Your task to perform on an android device: open chrome privacy settings Image 0: 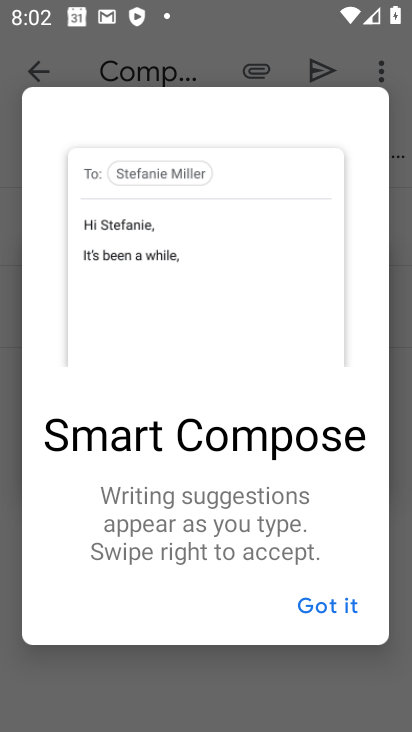
Step 0: press home button
Your task to perform on an android device: open chrome privacy settings Image 1: 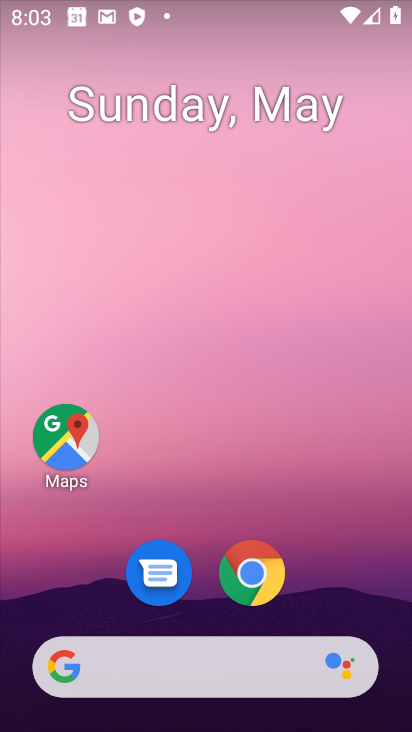
Step 1: click (250, 571)
Your task to perform on an android device: open chrome privacy settings Image 2: 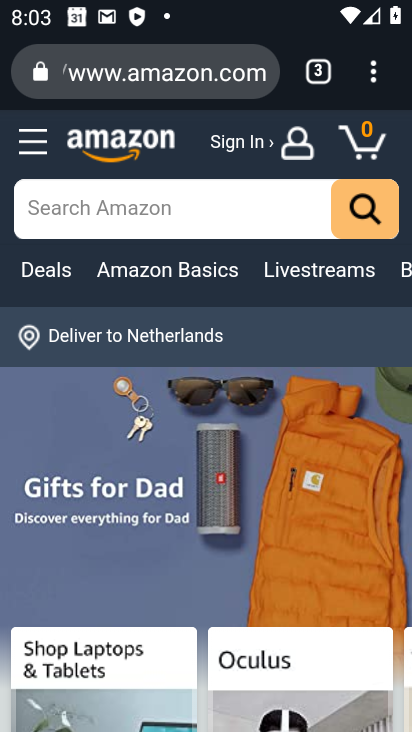
Step 2: click (372, 66)
Your task to perform on an android device: open chrome privacy settings Image 3: 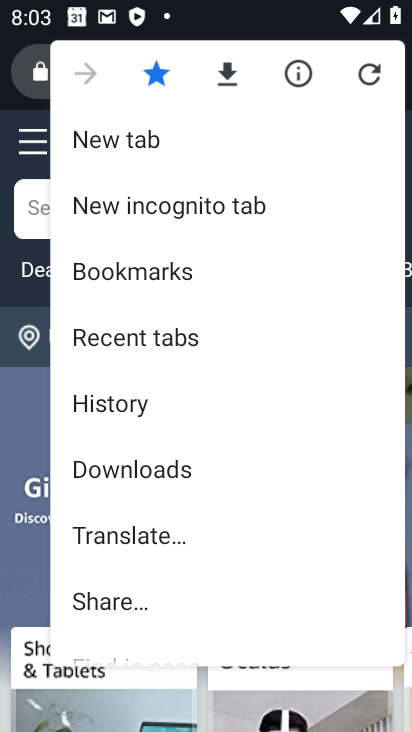
Step 3: drag from (243, 503) to (250, 129)
Your task to perform on an android device: open chrome privacy settings Image 4: 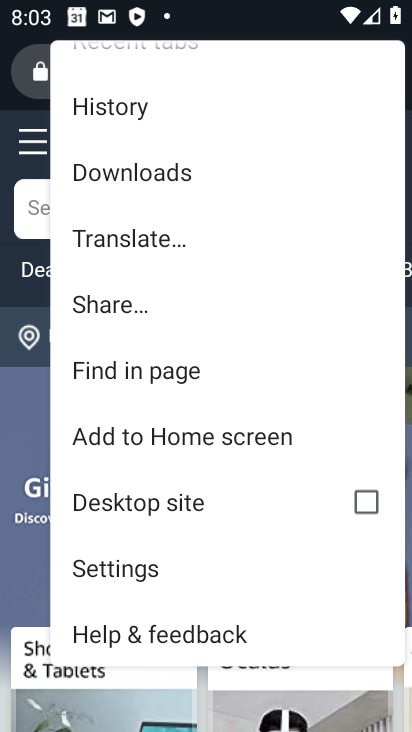
Step 4: click (171, 570)
Your task to perform on an android device: open chrome privacy settings Image 5: 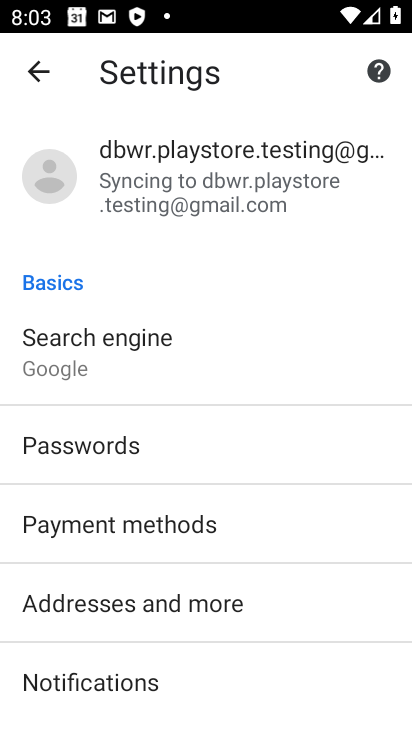
Step 5: drag from (232, 590) to (266, 243)
Your task to perform on an android device: open chrome privacy settings Image 6: 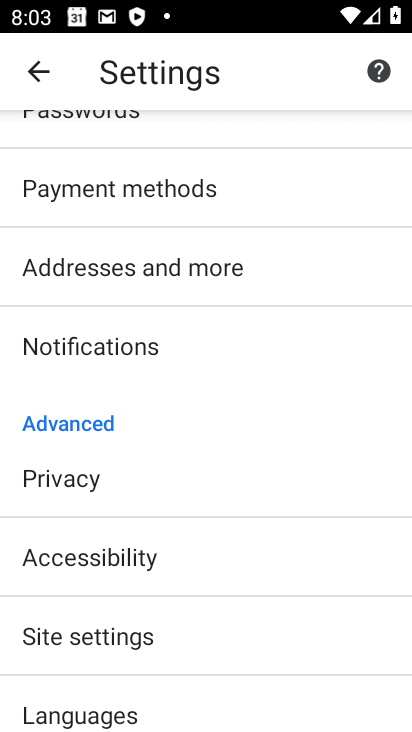
Step 6: click (227, 496)
Your task to perform on an android device: open chrome privacy settings Image 7: 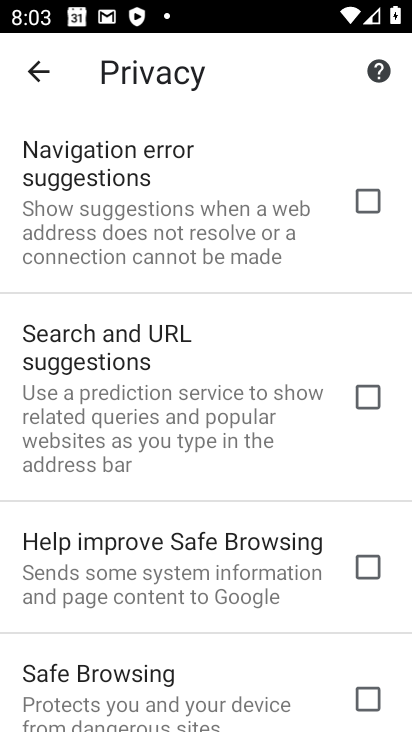
Step 7: task complete